Your task to perform on an android device: Add usb-c to the cart on target.com, then select checkout. Image 0: 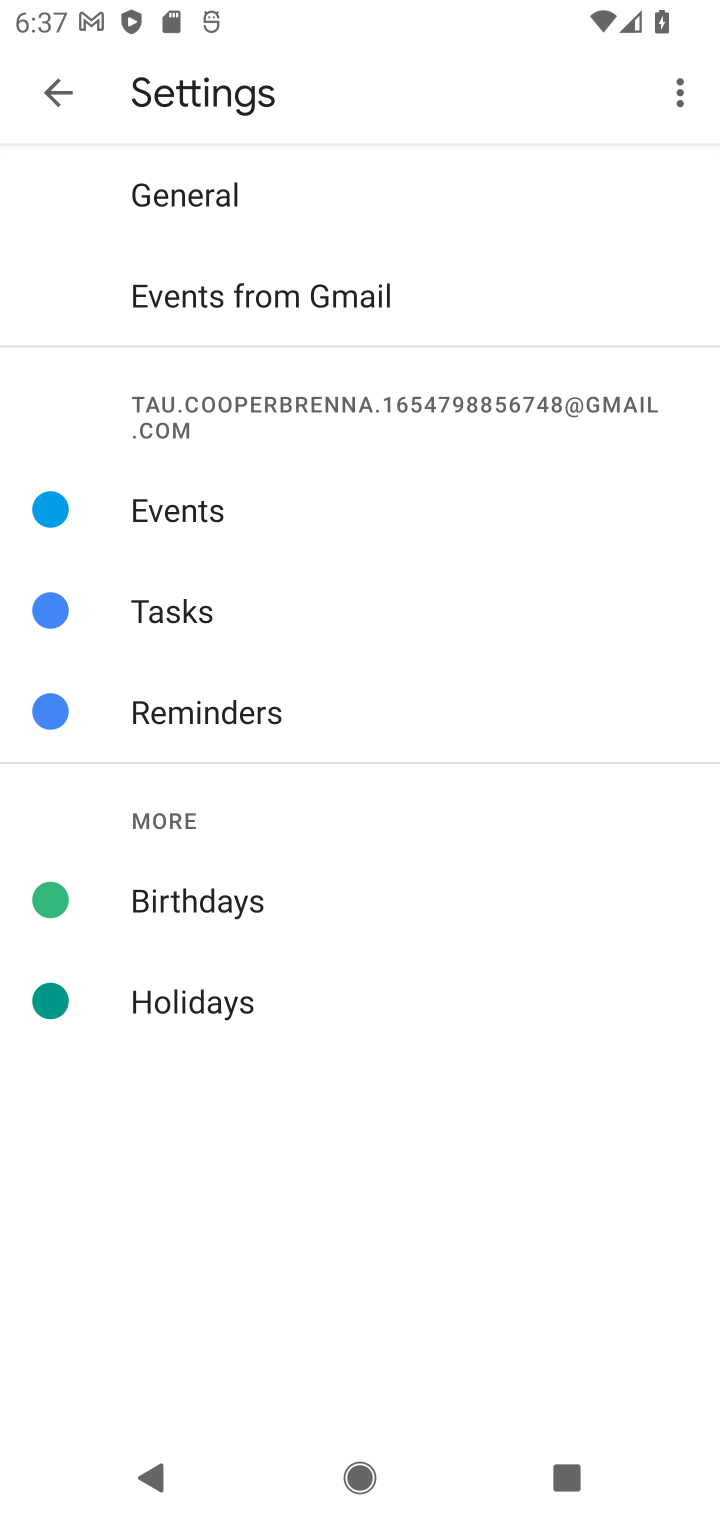
Step 0: press home button
Your task to perform on an android device: Add usb-c to the cart on target.com, then select checkout. Image 1: 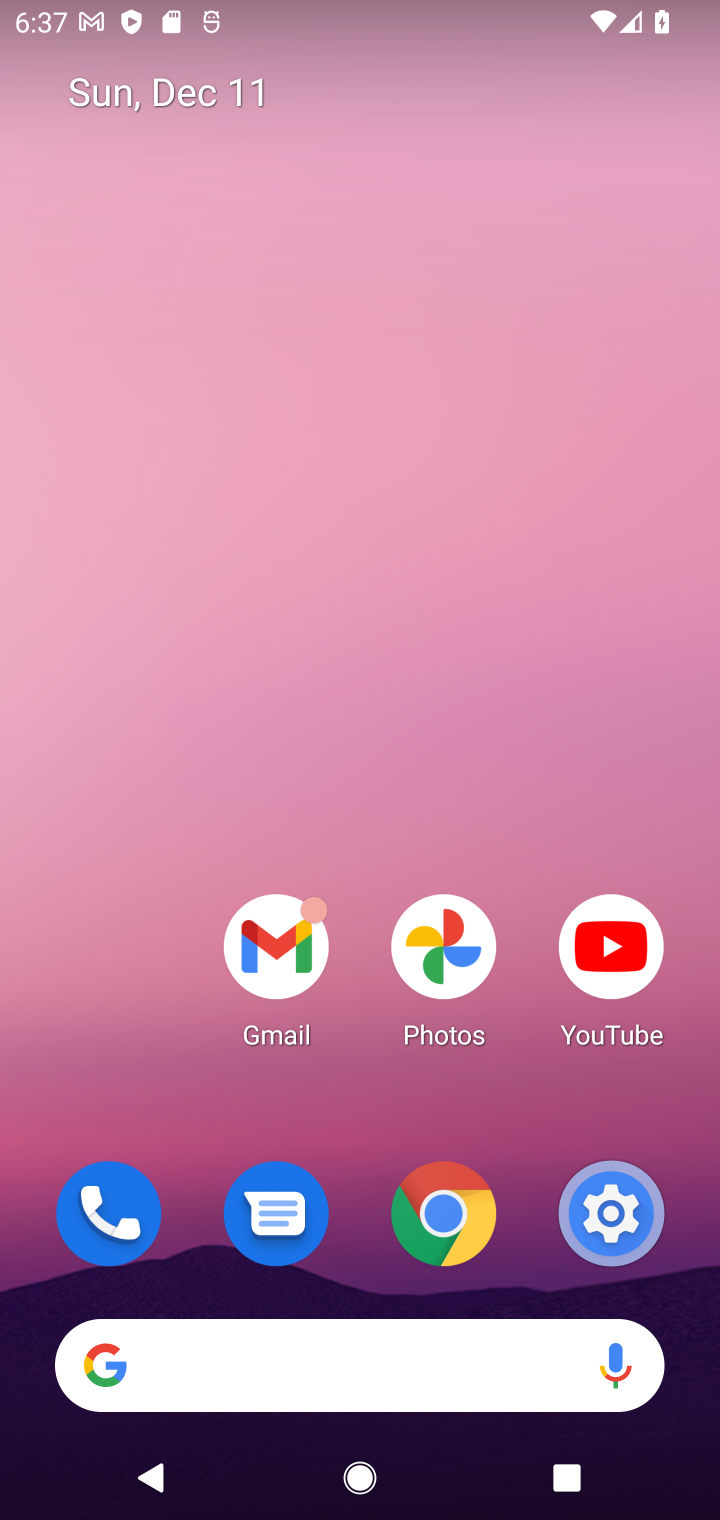
Step 1: click (250, 1423)
Your task to perform on an android device: Add usb-c to the cart on target.com, then select checkout. Image 2: 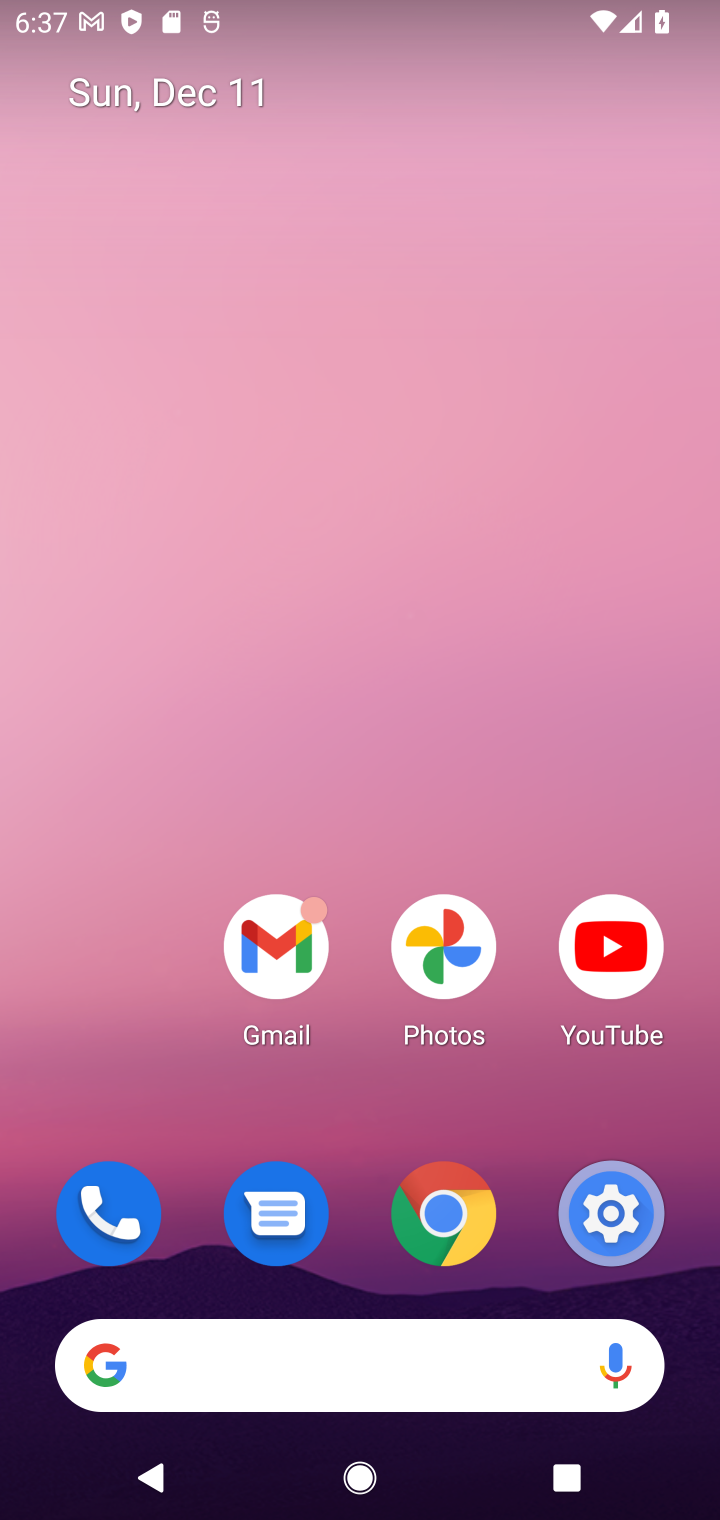
Step 2: click (324, 1395)
Your task to perform on an android device: Add usb-c to the cart on target.com, then select checkout. Image 3: 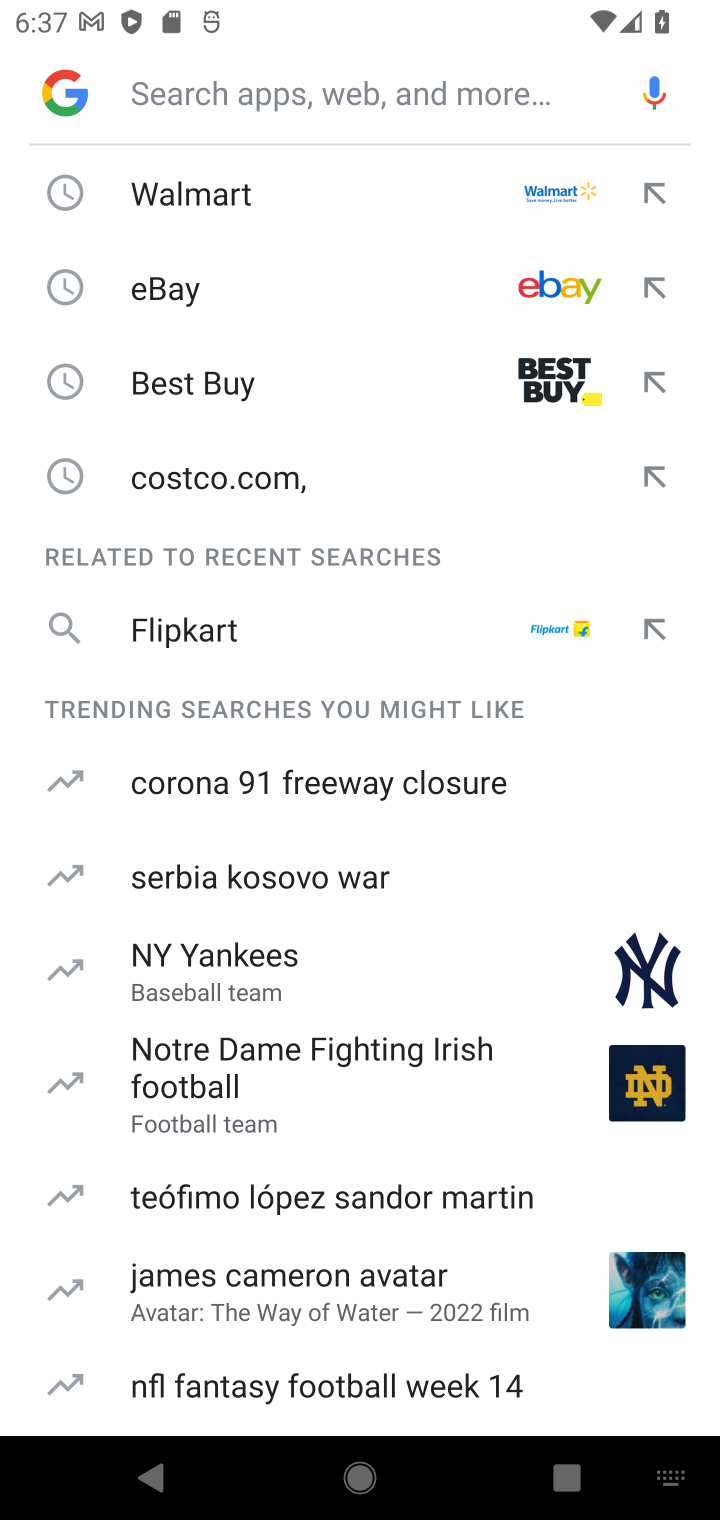
Step 3: type "target"
Your task to perform on an android device: Add usb-c to the cart on target.com, then select checkout. Image 4: 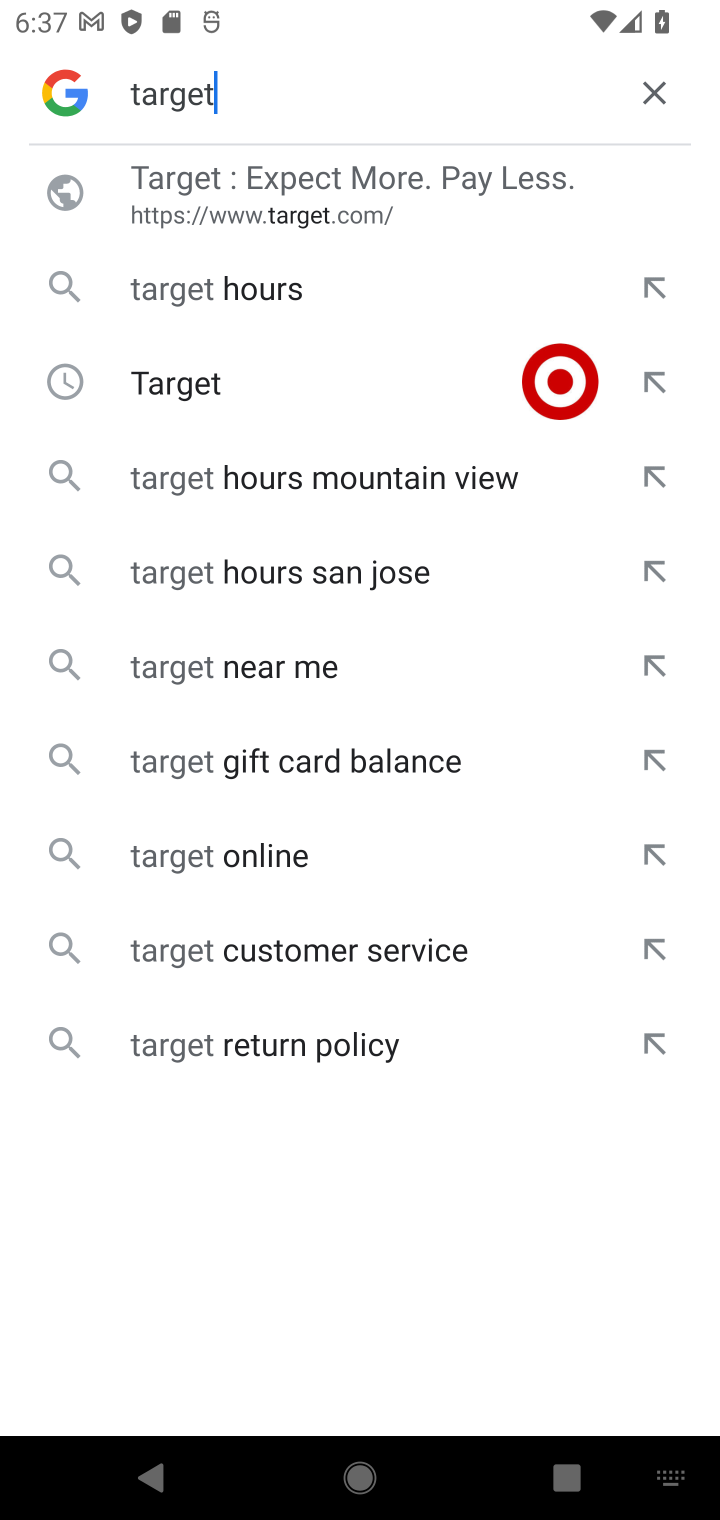
Step 4: click (180, 144)
Your task to perform on an android device: Add usb-c to the cart on target.com, then select checkout. Image 5: 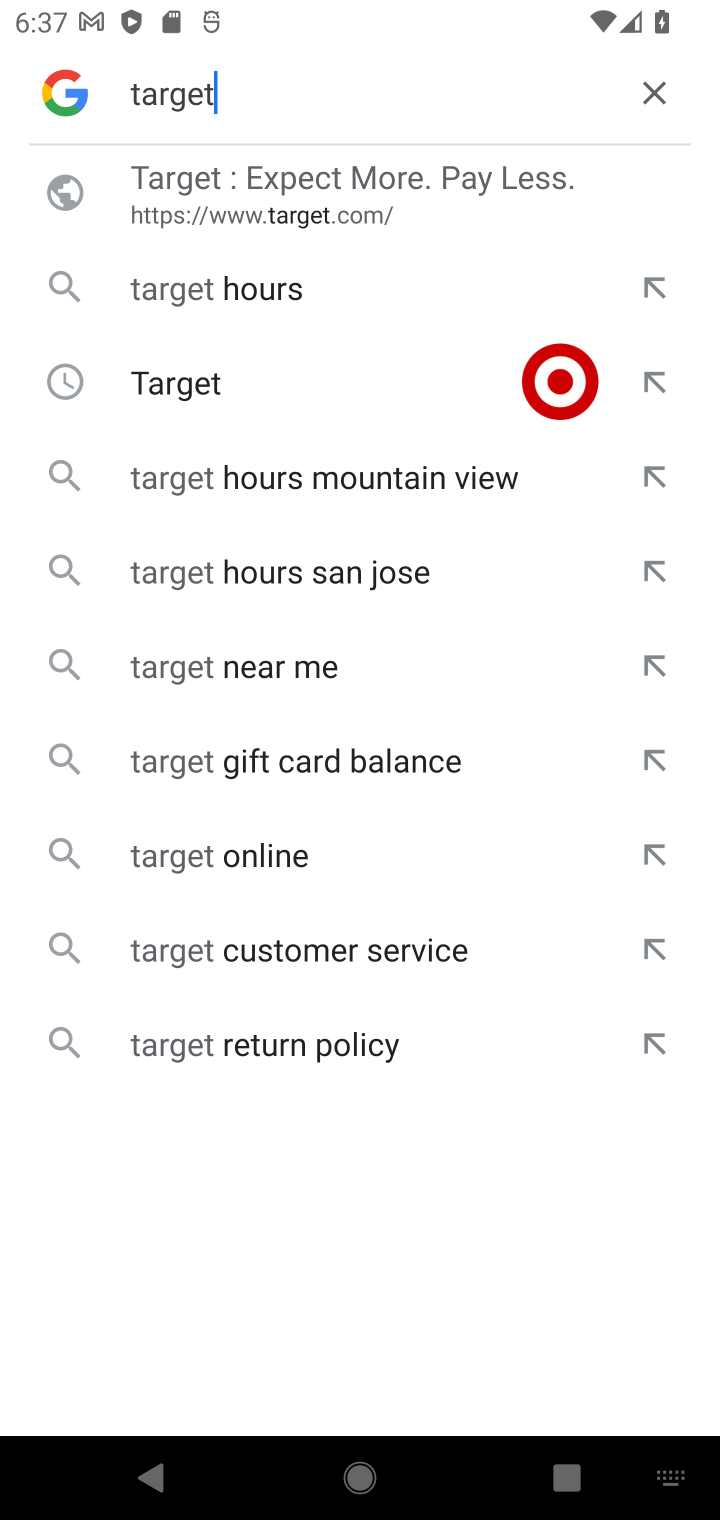
Step 5: click (180, 176)
Your task to perform on an android device: Add usb-c to the cart on target.com, then select checkout. Image 6: 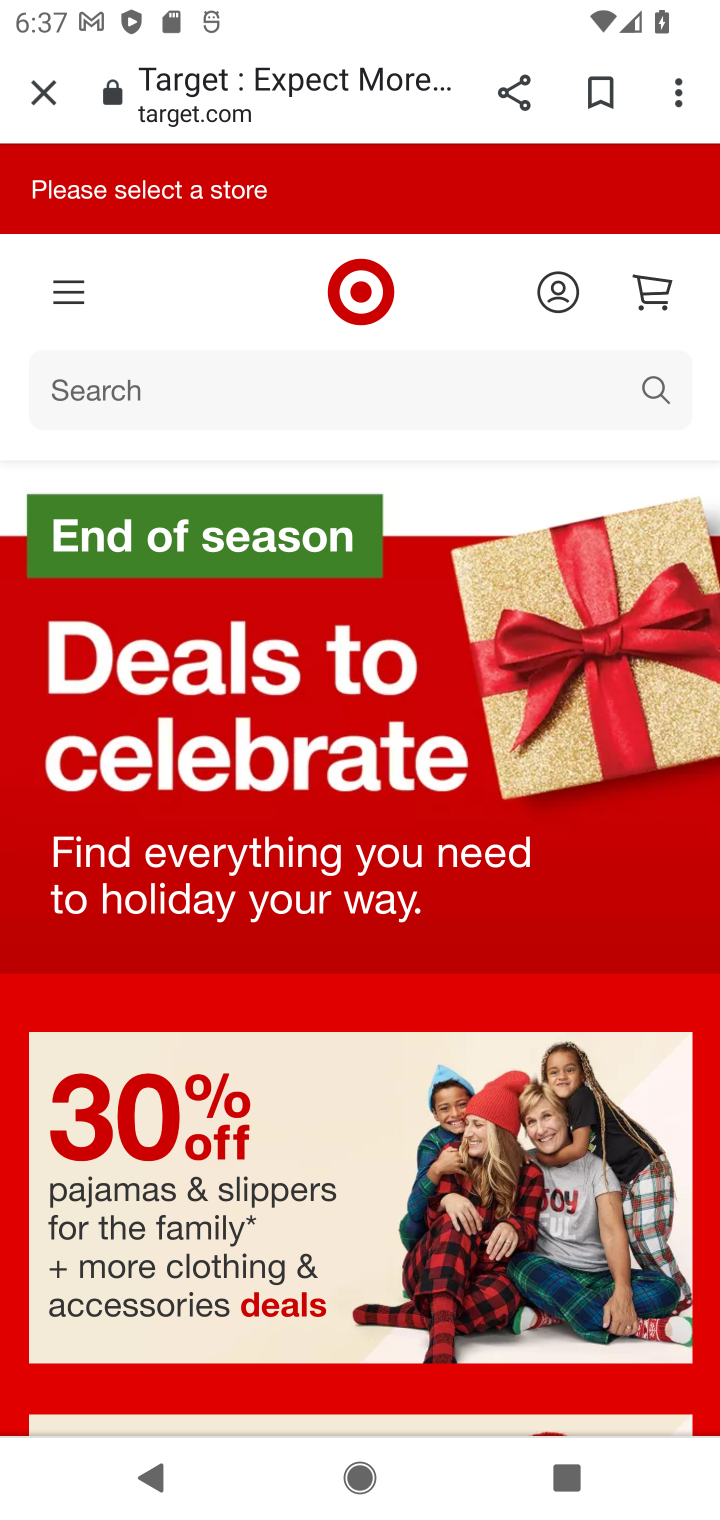
Step 6: click (376, 396)
Your task to perform on an android device: Add usb-c to the cart on target.com, then select checkout. Image 7: 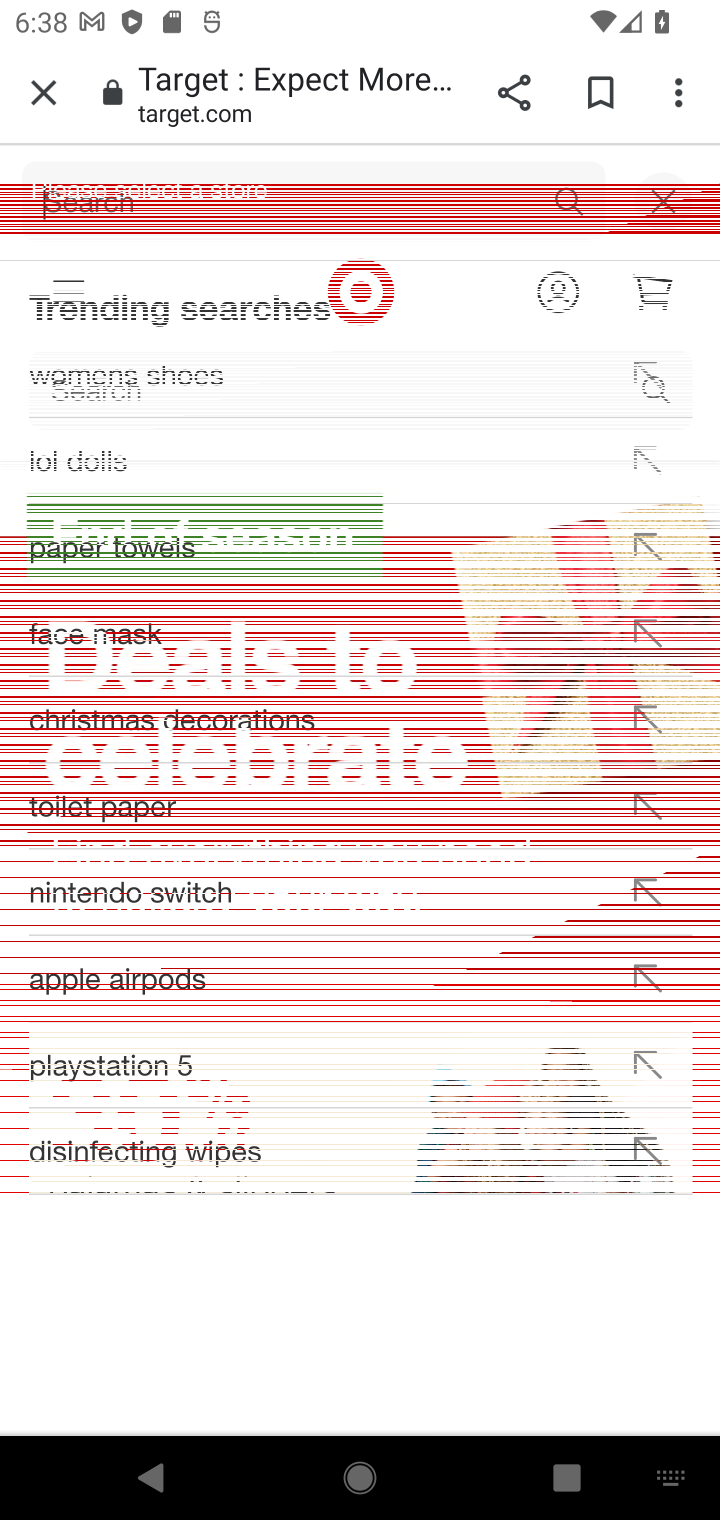
Step 7: type "usb-c"
Your task to perform on an android device: Add usb-c to the cart on target.com, then select checkout. Image 8: 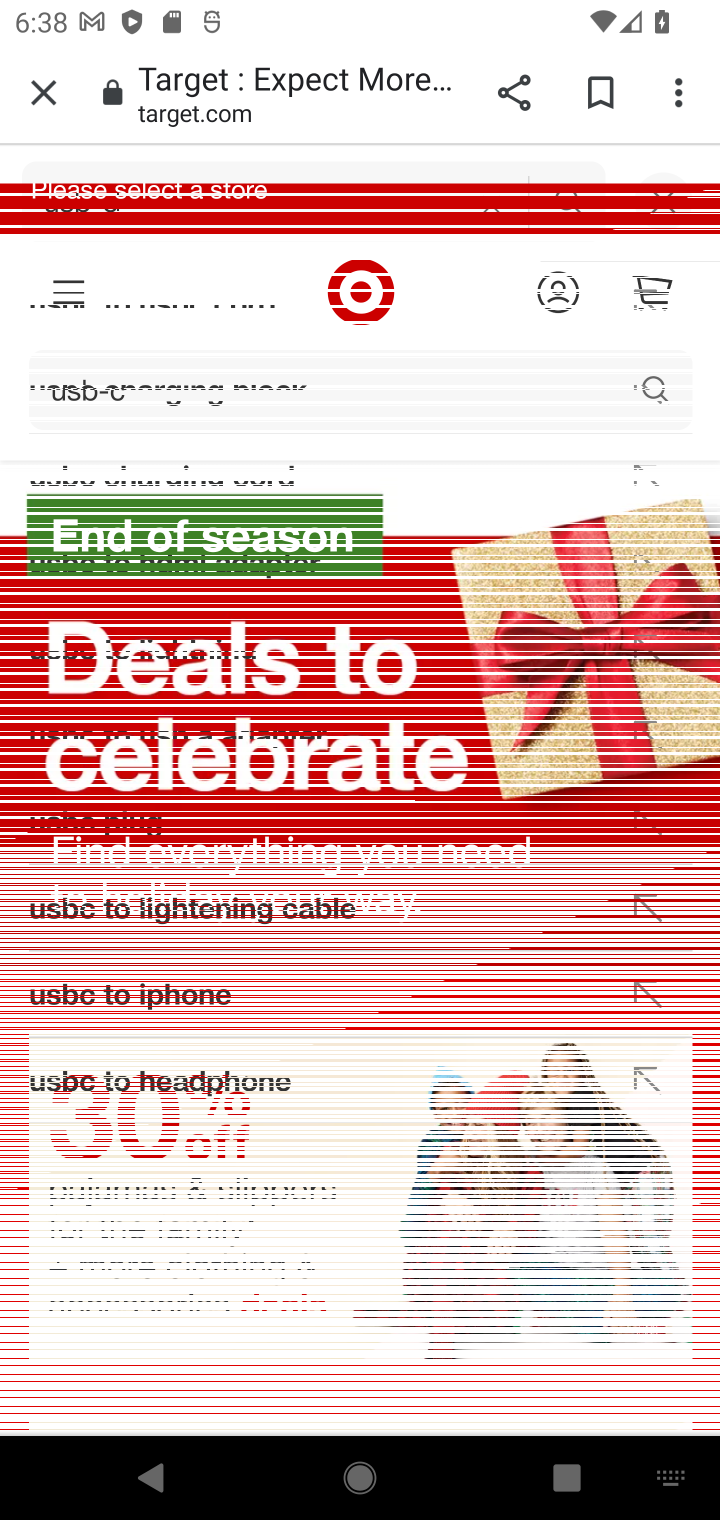
Step 8: click (556, 215)
Your task to perform on an android device: Add usb-c to the cart on target.com, then select checkout. Image 9: 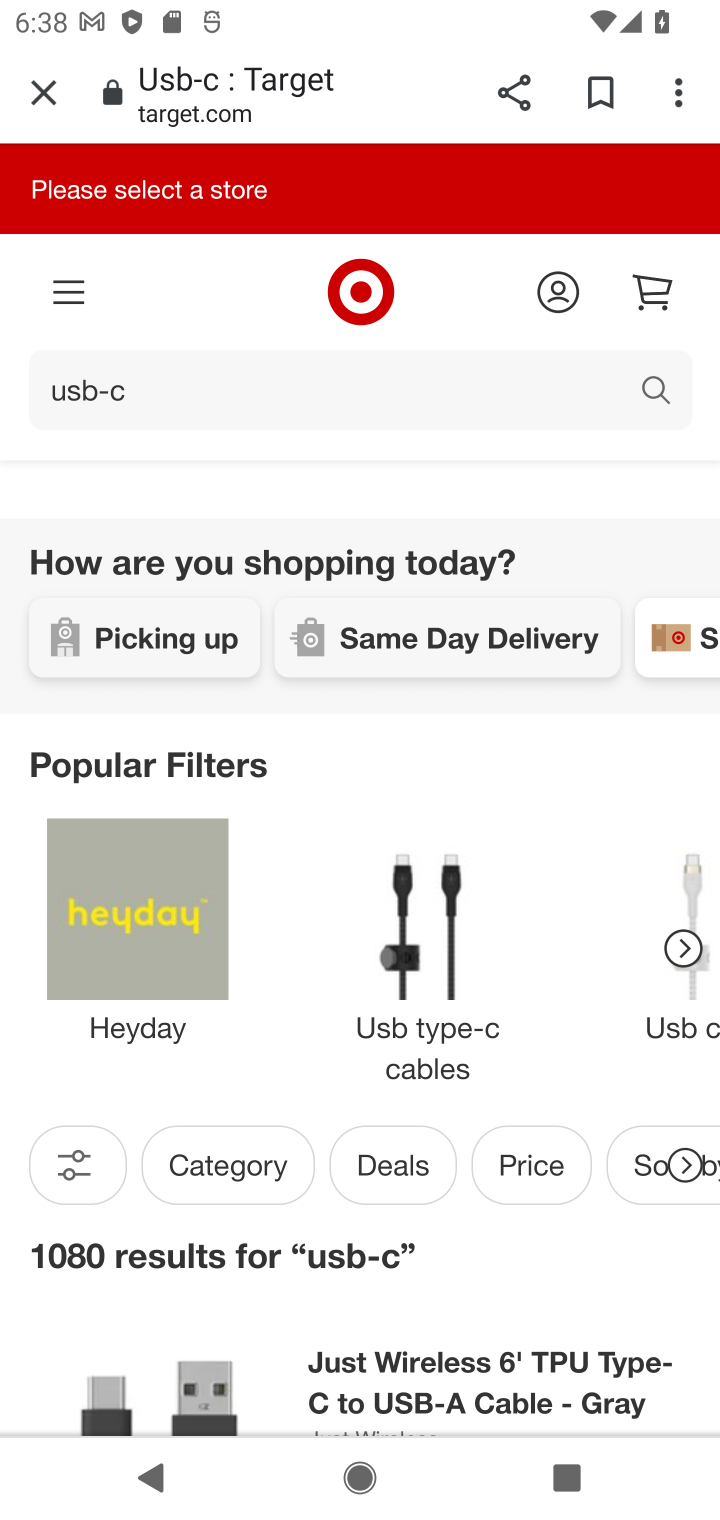
Step 9: click (218, 393)
Your task to perform on an android device: Add usb-c to the cart on target.com, then select checkout. Image 10: 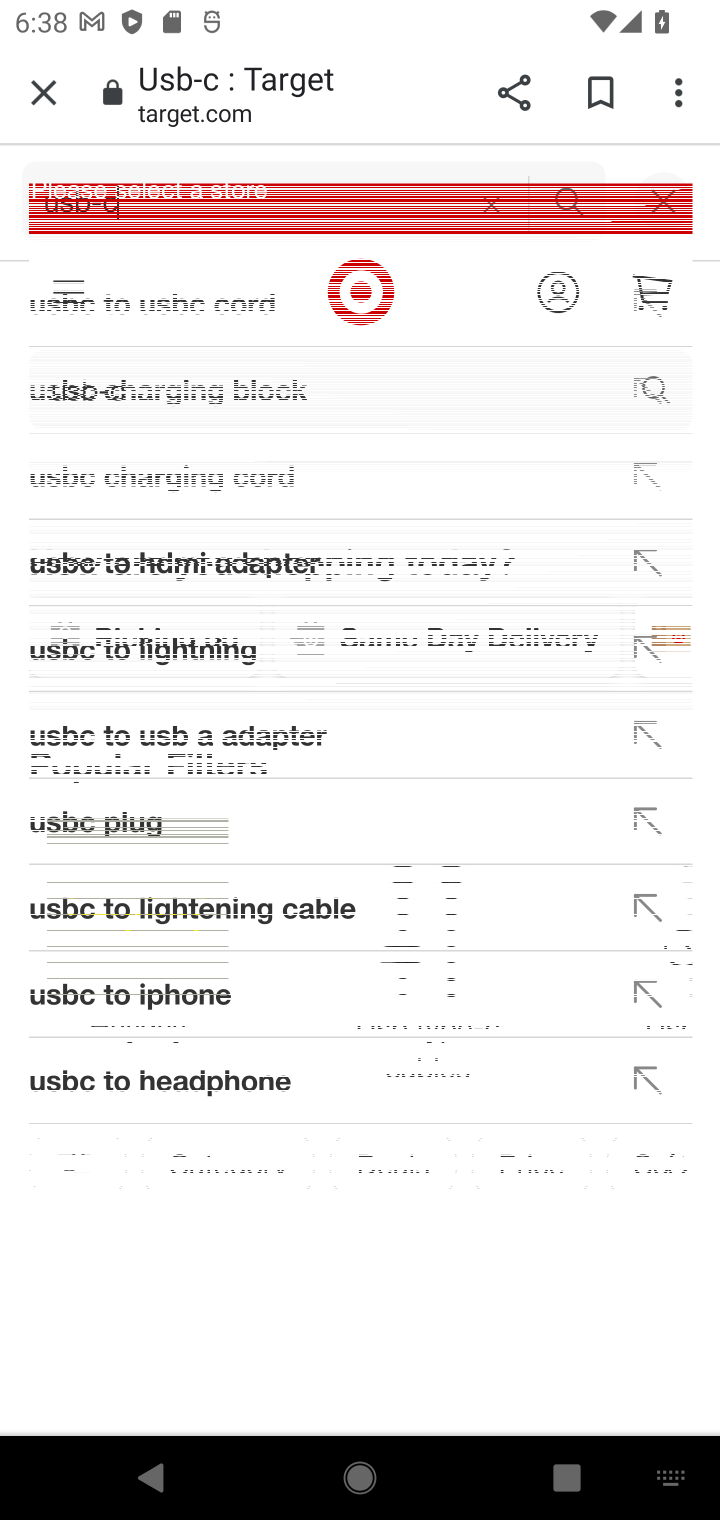
Step 10: click (550, 229)
Your task to perform on an android device: Add usb-c to the cart on target.com, then select checkout. Image 11: 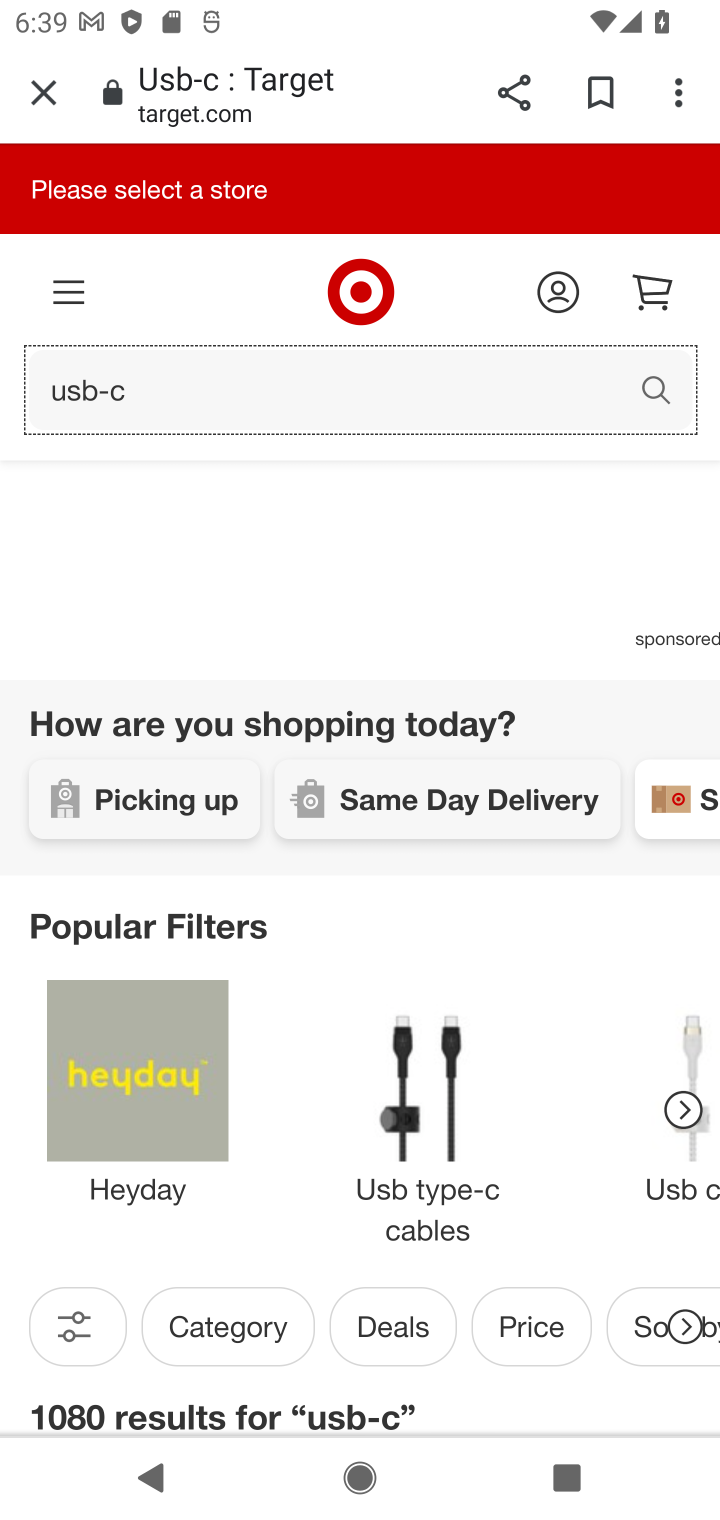
Step 11: click (447, 1129)
Your task to perform on an android device: Add usb-c to the cart on target.com, then select checkout. Image 12: 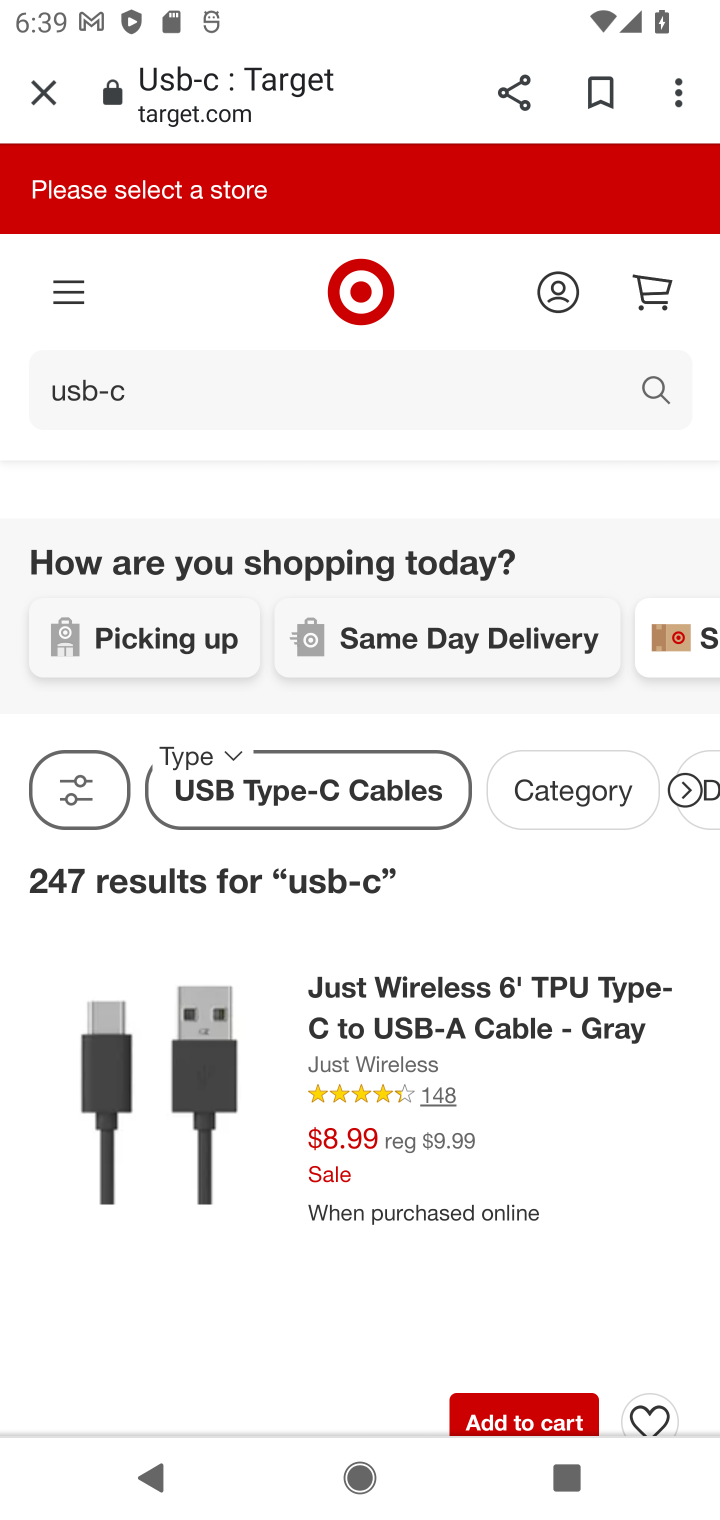
Step 12: click (531, 1422)
Your task to perform on an android device: Add usb-c to the cart on target.com, then select checkout. Image 13: 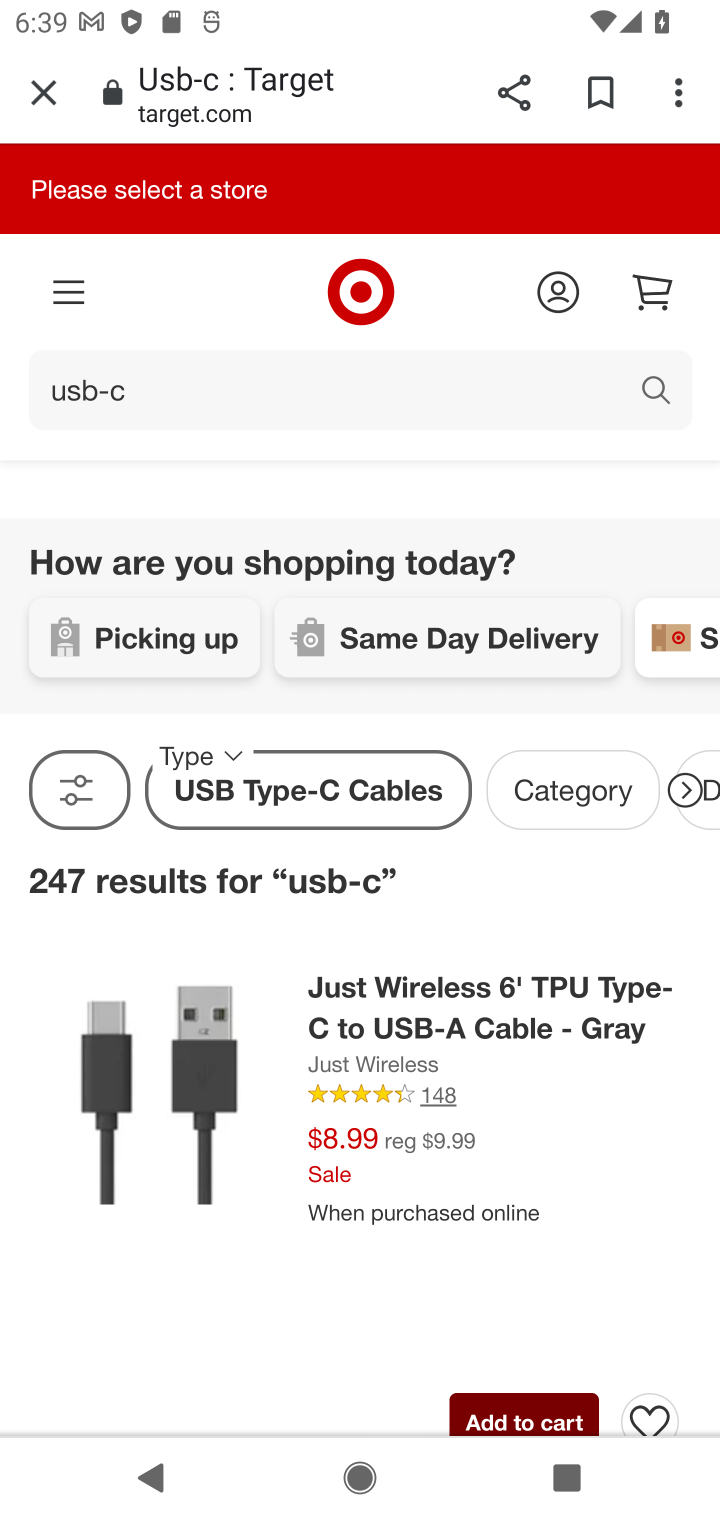
Step 13: task complete